Your task to perform on an android device: open wifi settings Image 0: 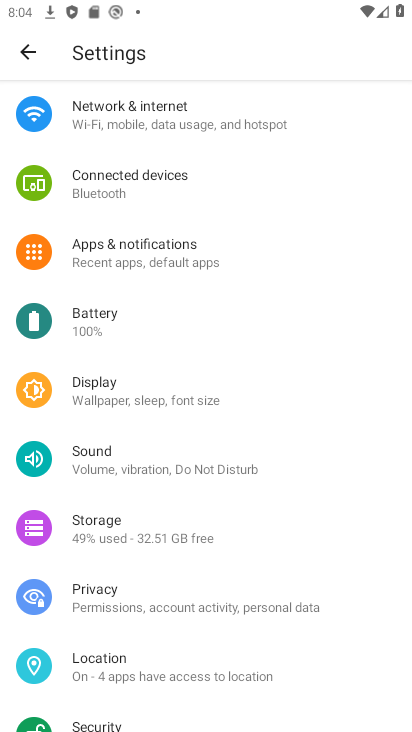
Step 0: press home button
Your task to perform on an android device: open wifi settings Image 1: 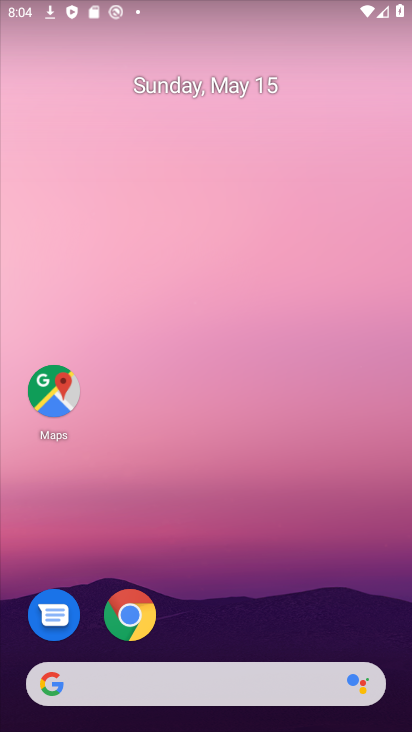
Step 1: drag from (221, 711) to (279, 325)
Your task to perform on an android device: open wifi settings Image 2: 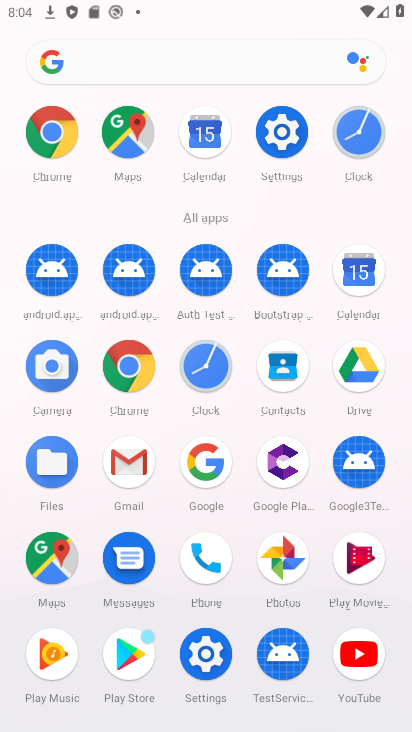
Step 2: click (289, 145)
Your task to perform on an android device: open wifi settings Image 3: 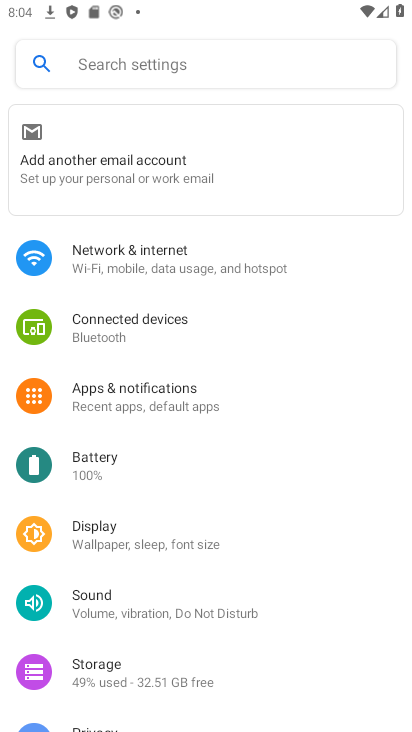
Step 3: click (153, 240)
Your task to perform on an android device: open wifi settings Image 4: 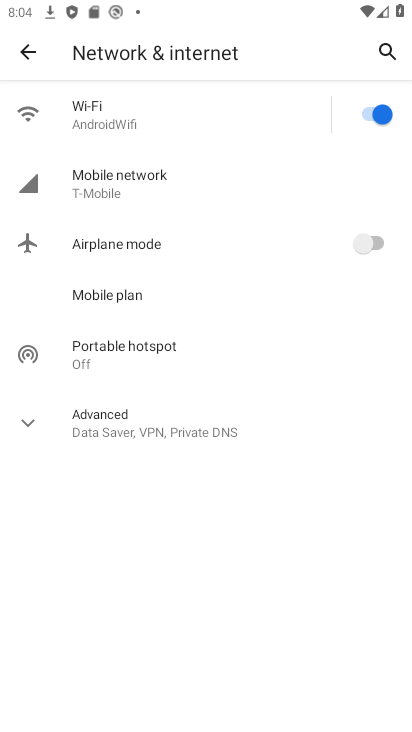
Step 4: click (122, 122)
Your task to perform on an android device: open wifi settings Image 5: 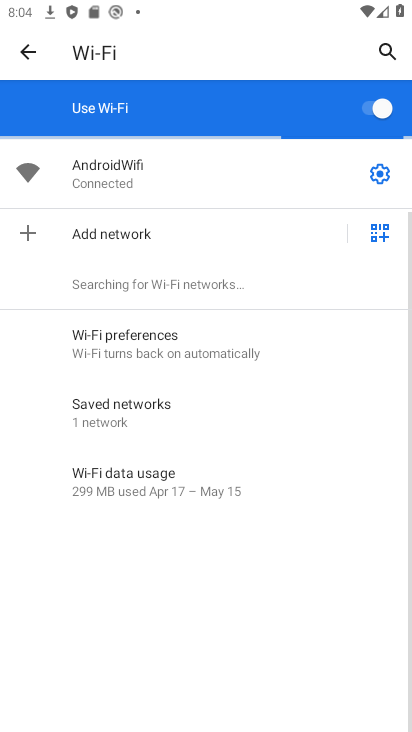
Step 5: task complete